Your task to perform on an android device: Open eBay Image 0: 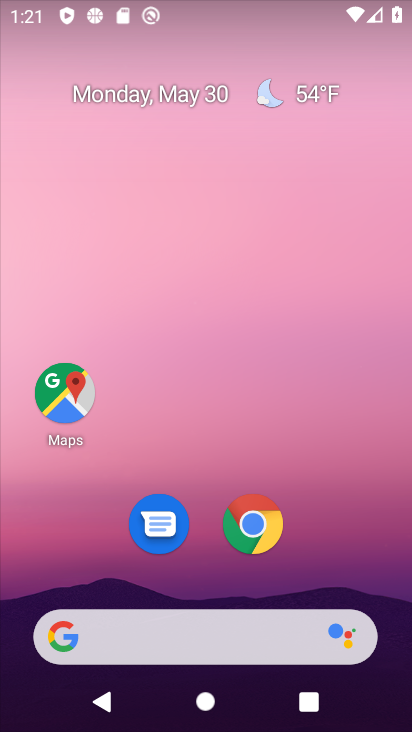
Step 0: click (277, 645)
Your task to perform on an android device: Open eBay Image 1: 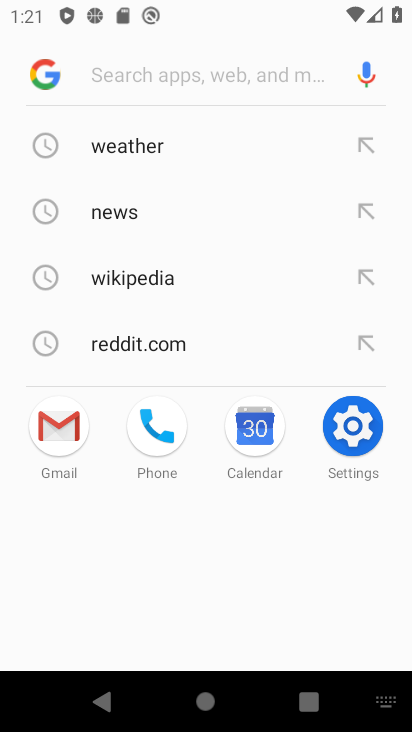
Step 1: type "ebay"
Your task to perform on an android device: Open eBay Image 2: 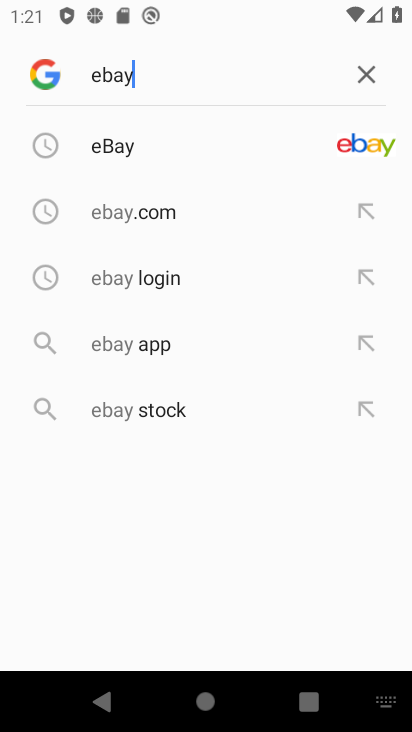
Step 2: click (119, 142)
Your task to perform on an android device: Open eBay Image 3: 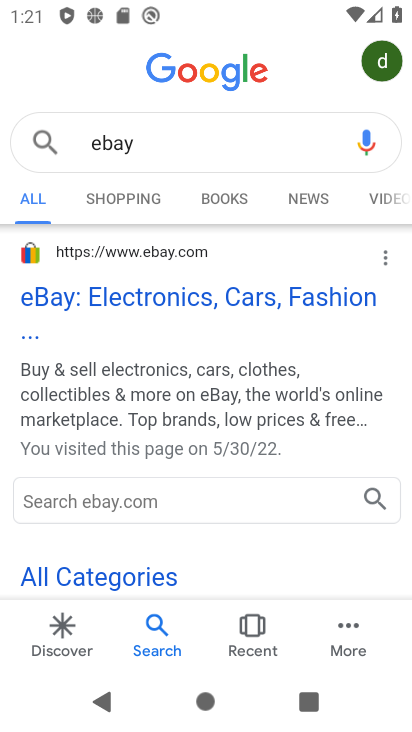
Step 3: click (51, 292)
Your task to perform on an android device: Open eBay Image 4: 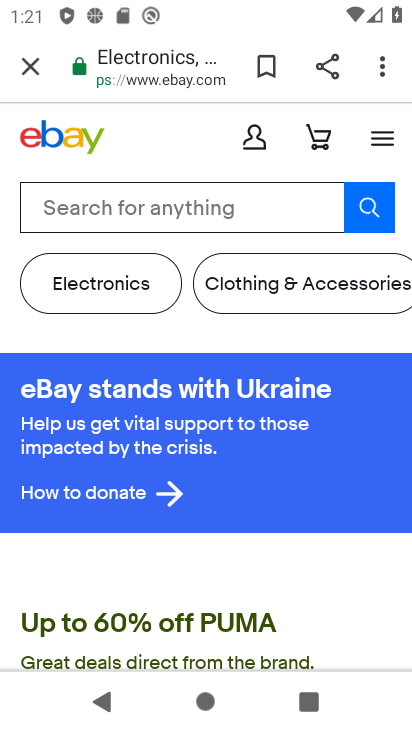
Step 4: task complete